Your task to perform on an android device: Open Google Maps and go to "Timeline" Image 0: 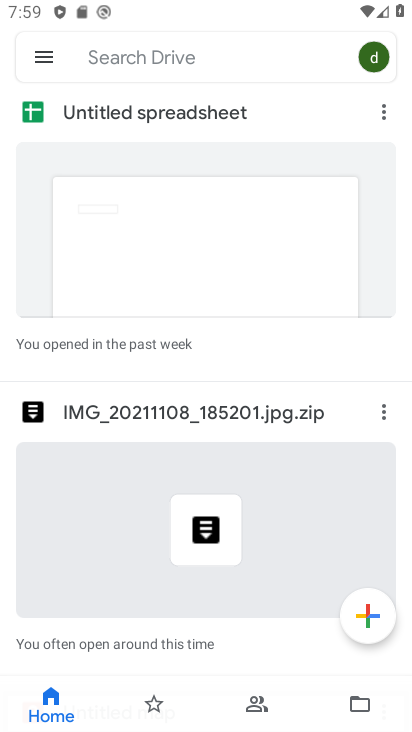
Step 0: press home button
Your task to perform on an android device: Open Google Maps and go to "Timeline" Image 1: 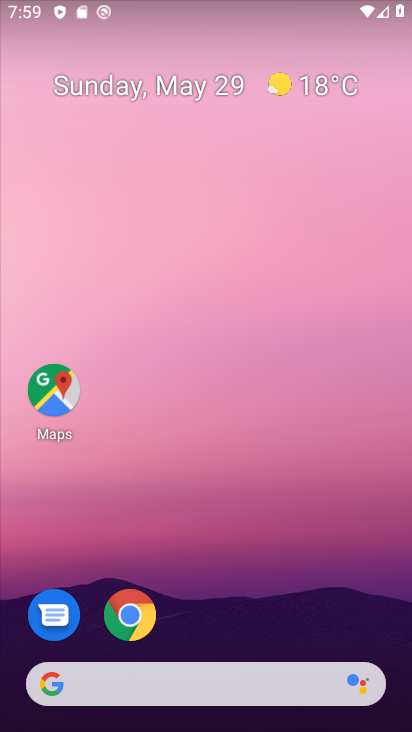
Step 1: click (60, 409)
Your task to perform on an android device: Open Google Maps and go to "Timeline" Image 2: 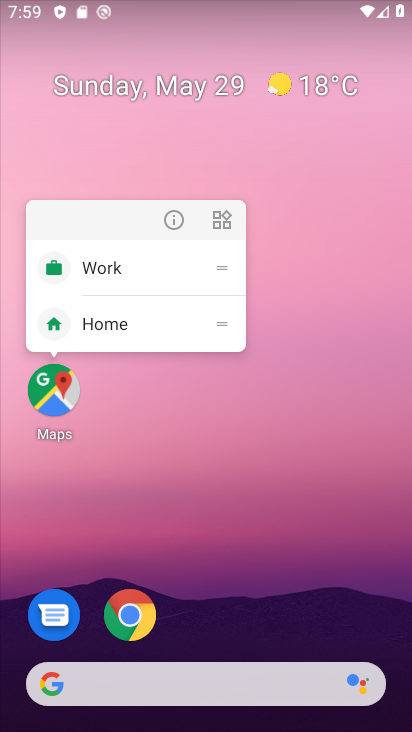
Step 2: click (61, 410)
Your task to perform on an android device: Open Google Maps and go to "Timeline" Image 3: 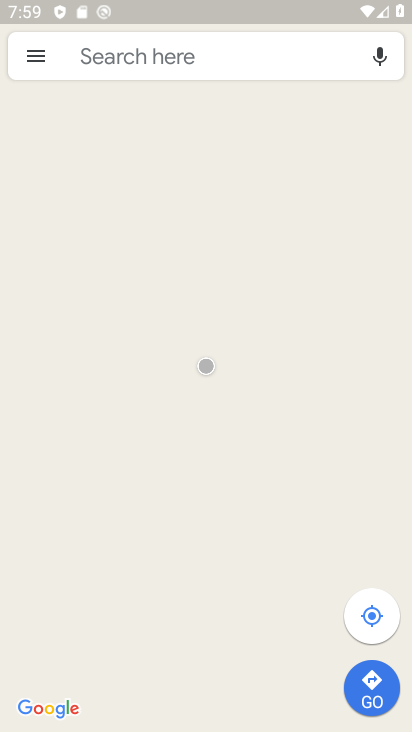
Step 3: click (35, 61)
Your task to perform on an android device: Open Google Maps and go to "Timeline" Image 4: 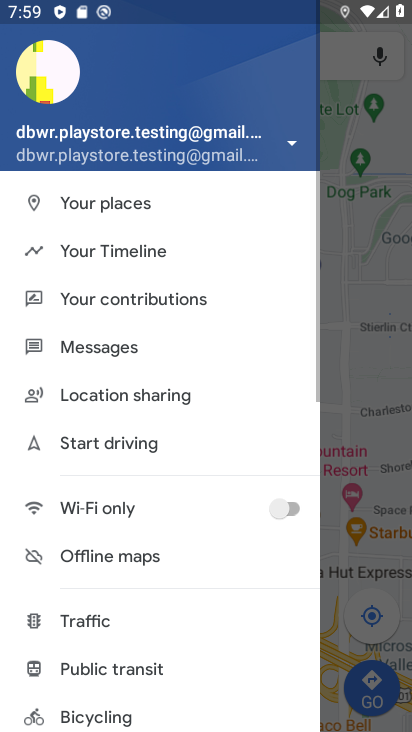
Step 4: click (114, 251)
Your task to perform on an android device: Open Google Maps and go to "Timeline" Image 5: 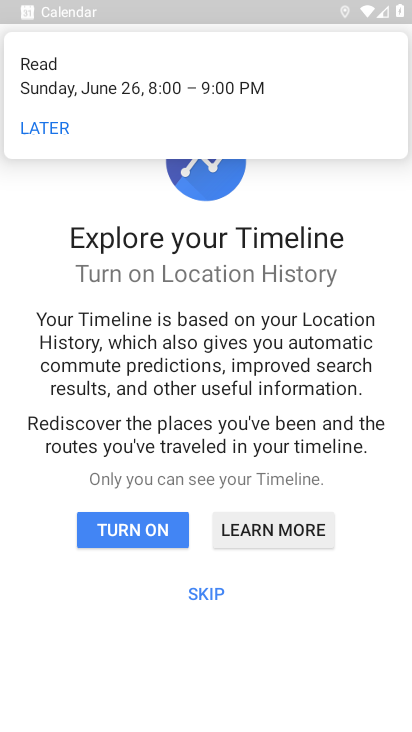
Step 5: click (211, 586)
Your task to perform on an android device: Open Google Maps and go to "Timeline" Image 6: 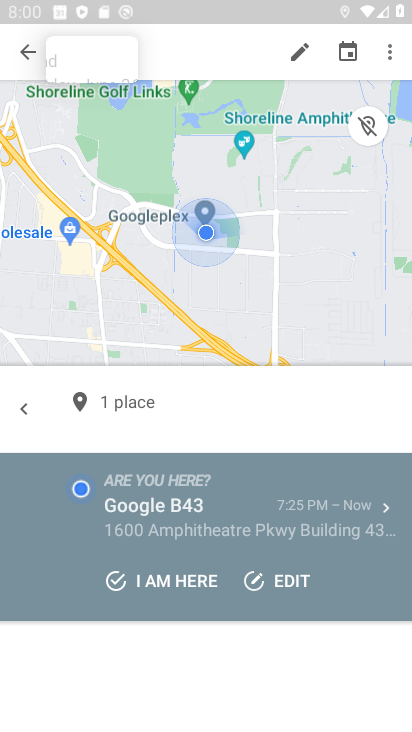
Step 6: click (45, 121)
Your task to perform on an android device: Open Google Maps and go to "Timeline" Image 7: 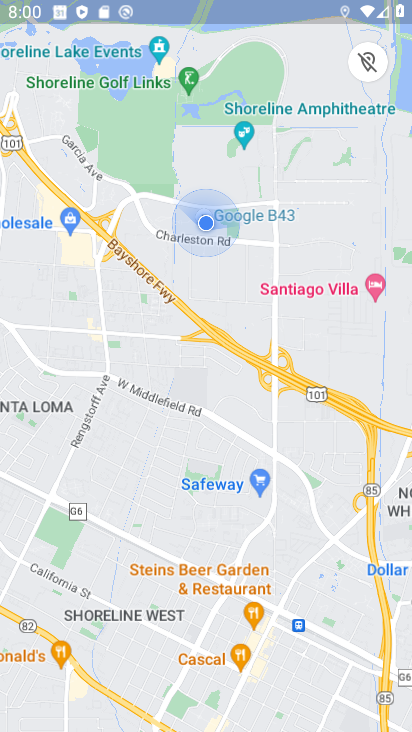
Step 7: task complete